Your task to perform on an android device: turn on sleep mode Image 0: 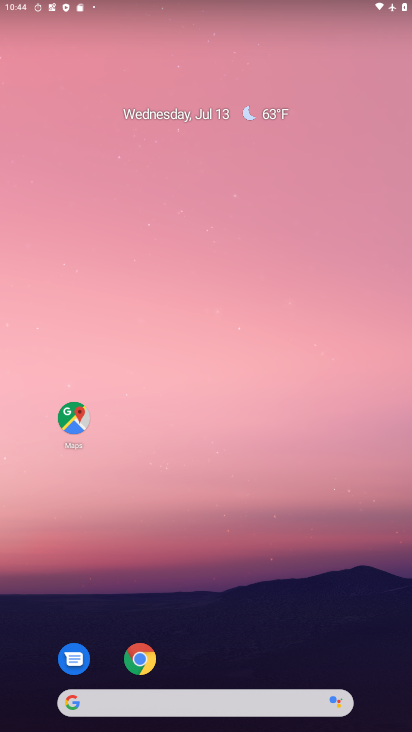
Step 0: drag from (311, 582) to (304, 56)
Your task to perform on an android device: turn on sleep mode Image 1: 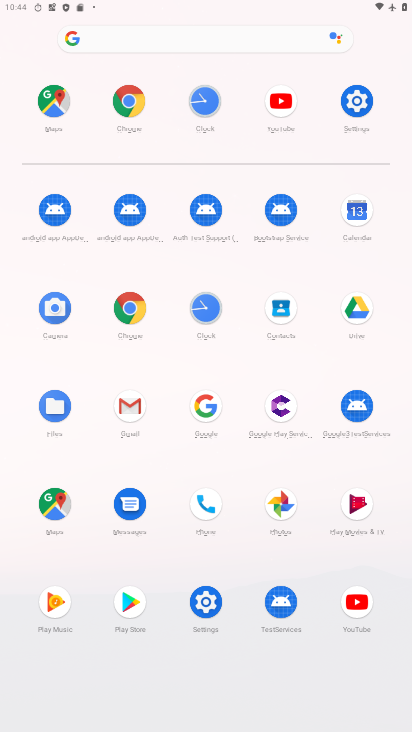
Step 1: click (363, 104)
Your task to perform on an android device: turn on sleep mode Image 2: 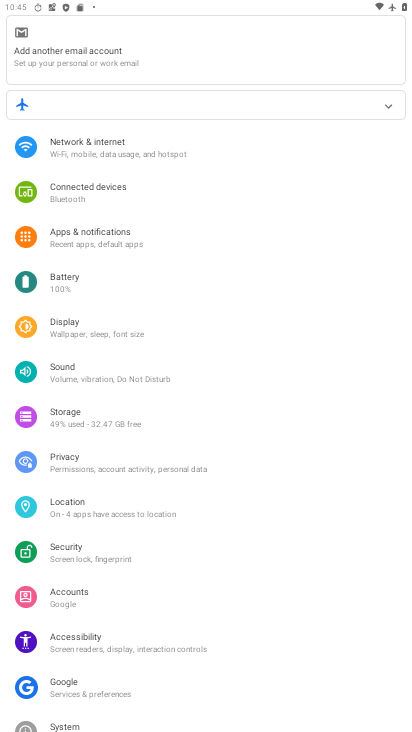
Step 2: click (69, 331)
Your task to perform on an android device: turn on sleep mode Image 3: 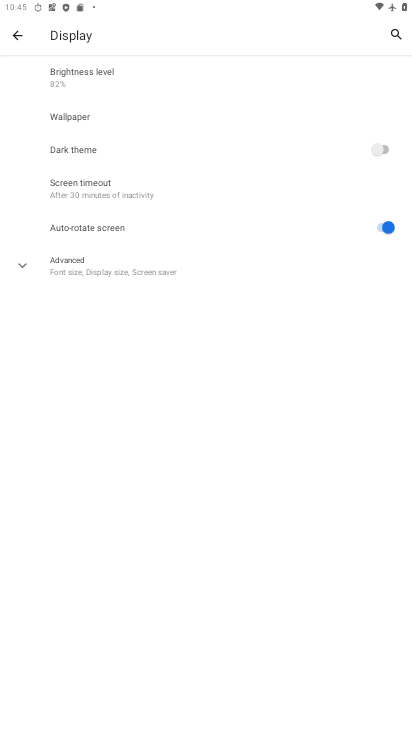
Step 3: click (92, 191)
Your task to perform on an android device: turn on sleep mode Image 4: 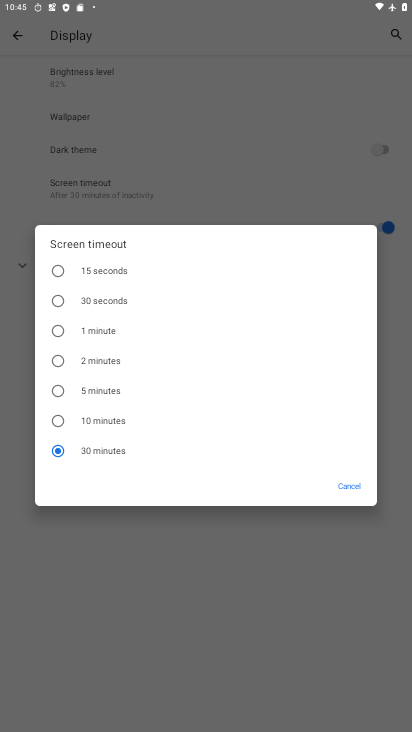
Step 4: task complete